Your task to perform on an android device: Google the capital of Venezuela Image 0: 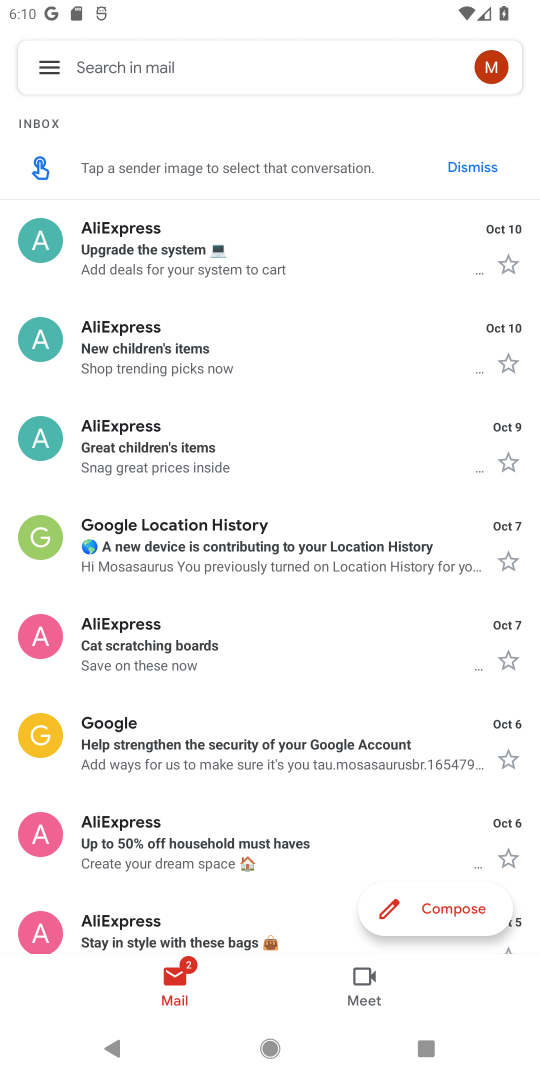
Step 0: click (327, 1076)
Your task to perform on an android device: Google the capital of Venezuela Image 1: 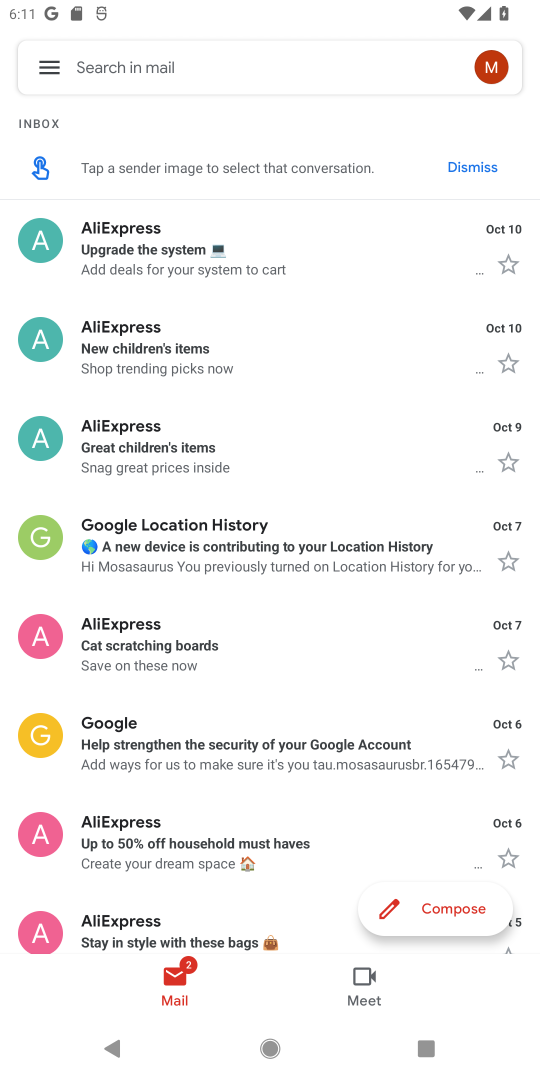
Step 1: press home button
Your task to perform on an android device: Google the capital of Venezuela Image 2: 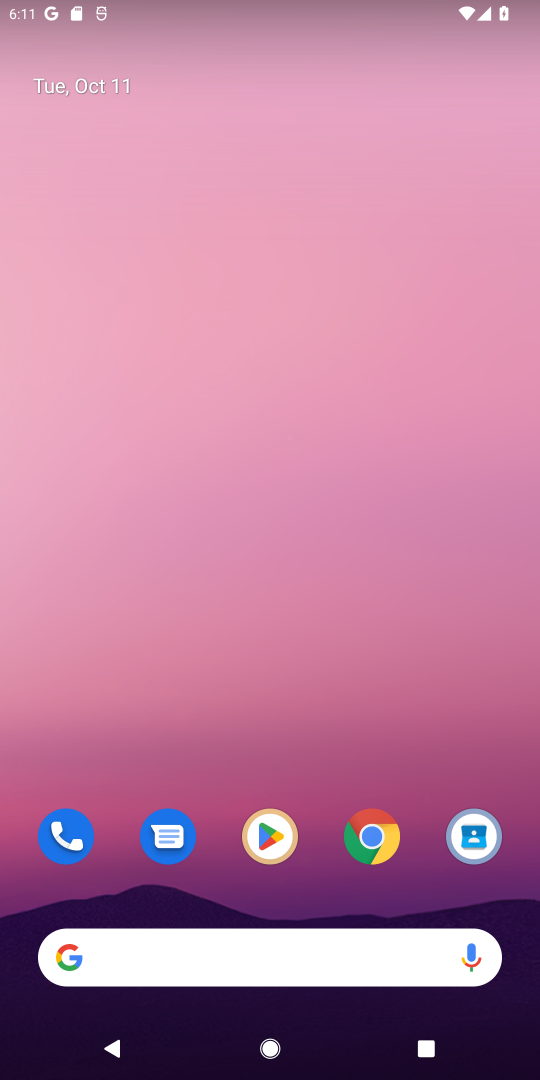
Step 2: click (309, 951)
Your task to perform on an android device: Google the capital of Venezuela Image 3: 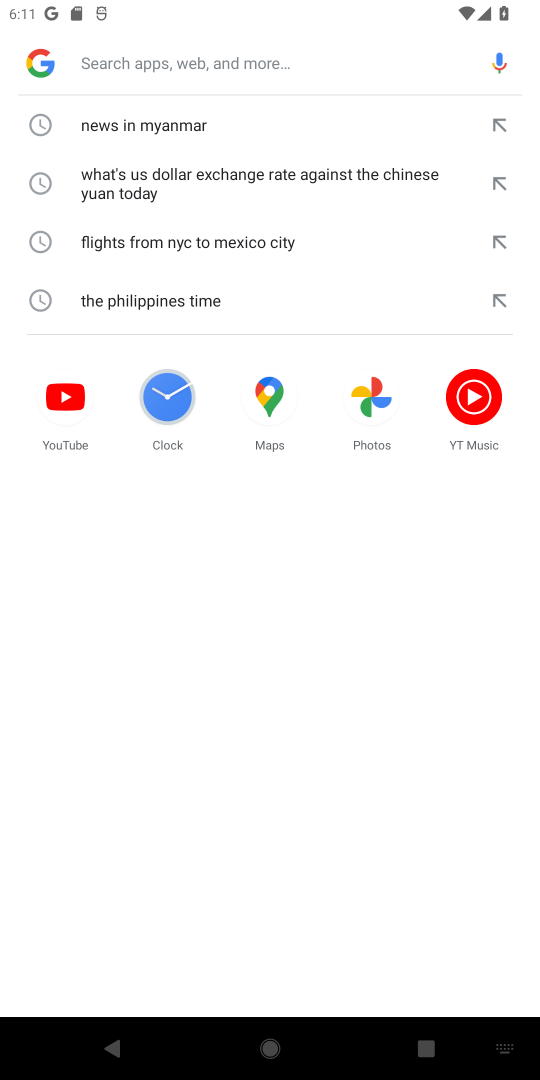
Step 3: type "capital of Venezuela"
Your task to perform on an android device: Google the capital of Venezuela Image 4: 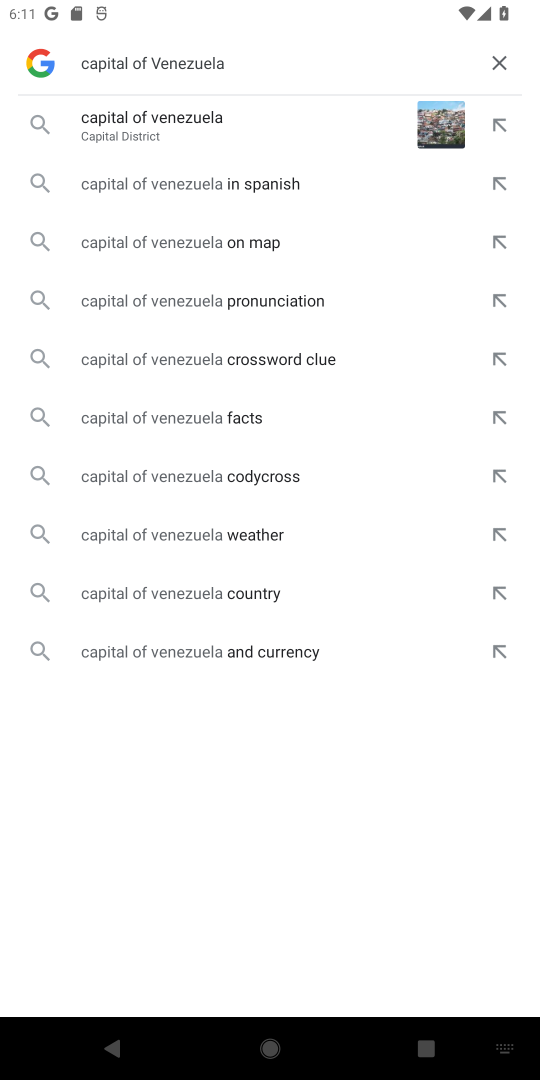
Step 4: click (224, 116)
Your task to perform on an android device: Google the capital of Venezuela Image 5: 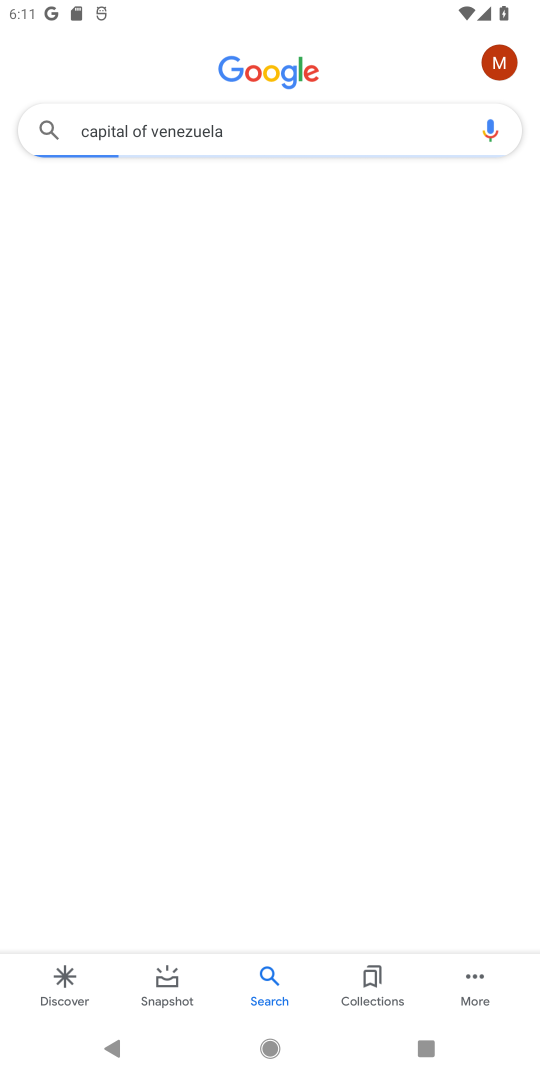
Step 5: task complete